Your task to perform on an android device: Search for seafood restaurants on Google Maps Image 0: 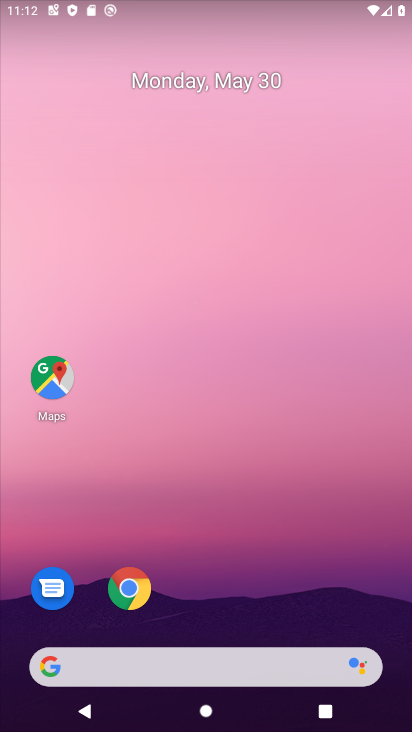
Step 0: press home button
Your task to perform on an android device: Search for seafood restaurants on Google Maps Image 1: 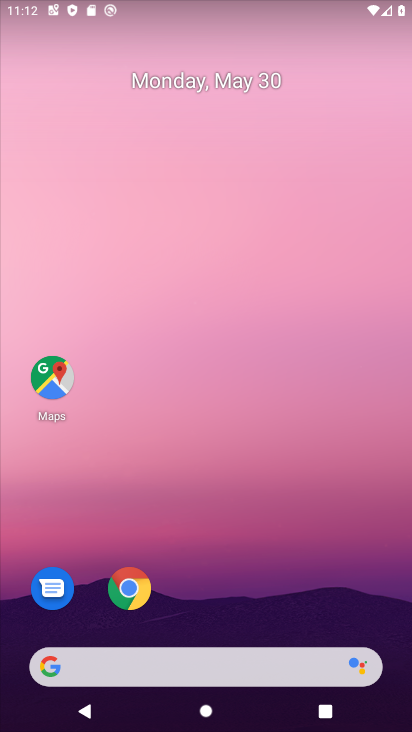
Step 1: click (43, 378)
Your task to perform on an android device: Search for seafood restaurants on Google Maps Image 2: 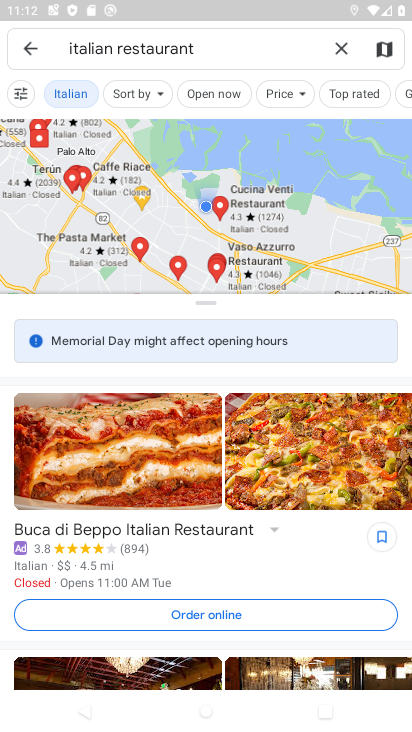
Step 2: click (336, 53)
Your task to perform on an android device: Search for seafood restaurants on Google Maps Image 3: 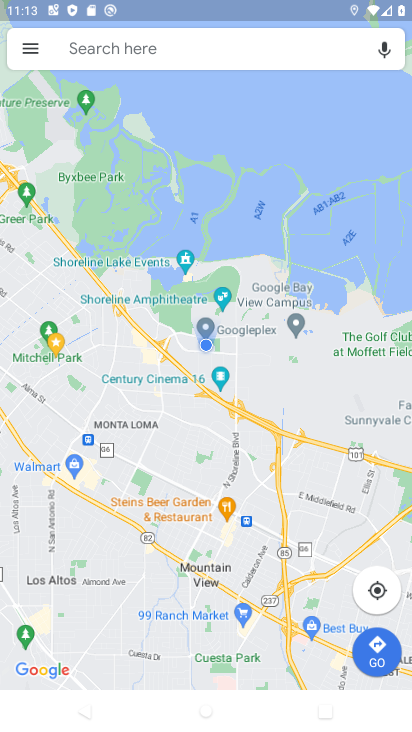
Step 3: click (105, 40)
Your task to perform on an android device: Search for seafood restaurants on Google Maps Image 4: 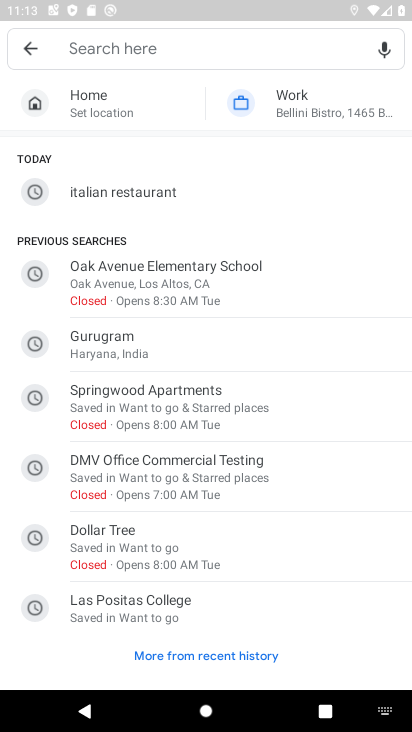
Step 4: type "seafood"
Your task to perform on an android device: Search for seafood restaurants on Google Maps Image 5: 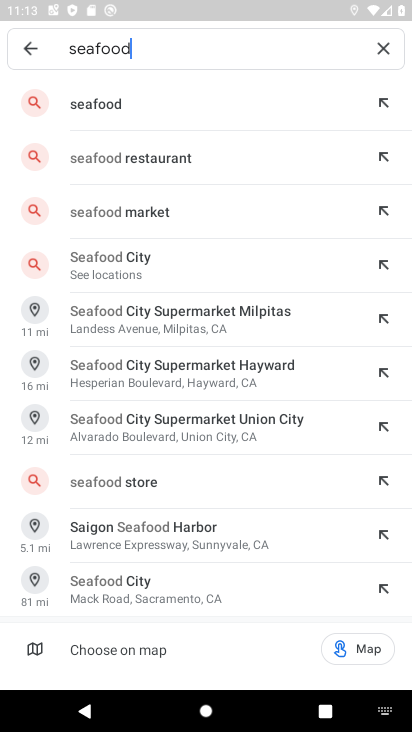
Step 5: click (223, 164)
Your task to perform on an android device: Search for seafood restaurants on Google Maps Image 6: 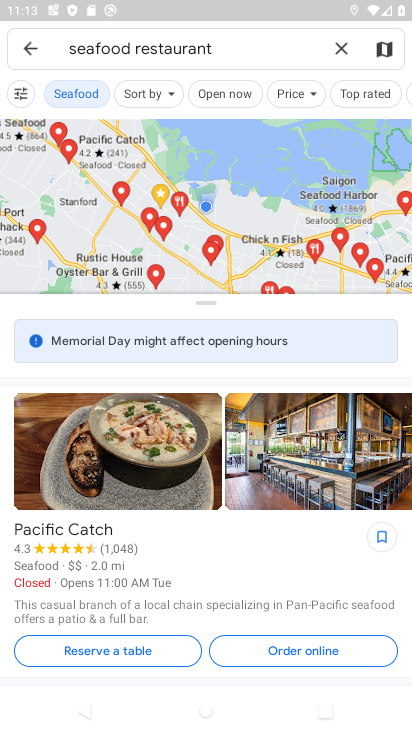
Step 6: task complete